Your task to perform on an android device: Open Youtube and go to the subscriptions tab Image 0: 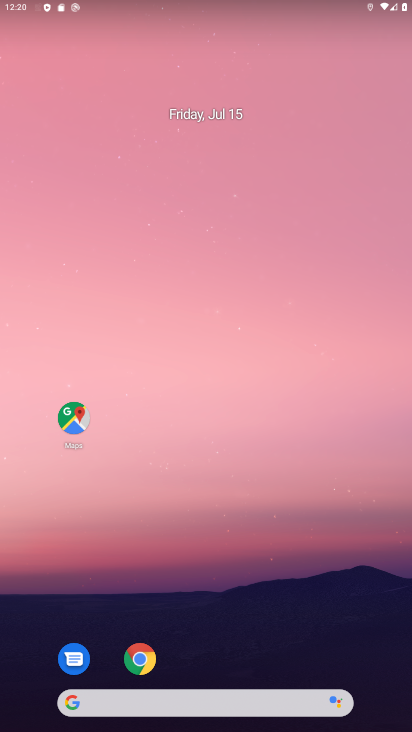
Step 0: drag from (218, 653) to (229, 80)
Your task to perform on an android device: Open Youtube and go to the subscriptions tab Image 1: 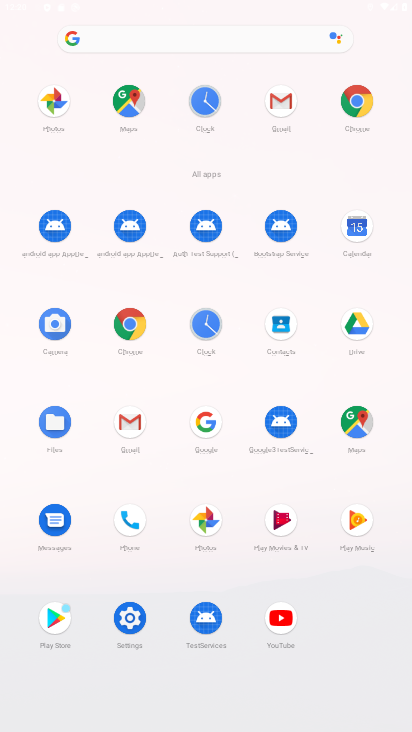
Step 1: click (283, 612)
Your task to perform on an android device: Open Youtube and go to the subscriptions tab Image 2: 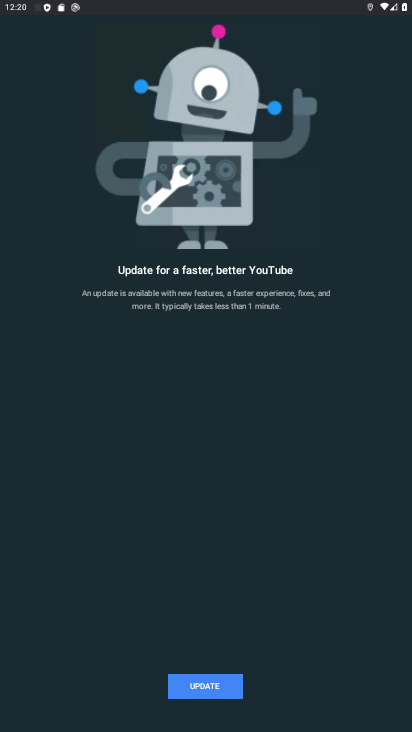
Step 2: click (197, 685)
Your task to perform on an android device: Open Youtube and go to the subscriptions tab Image 3: 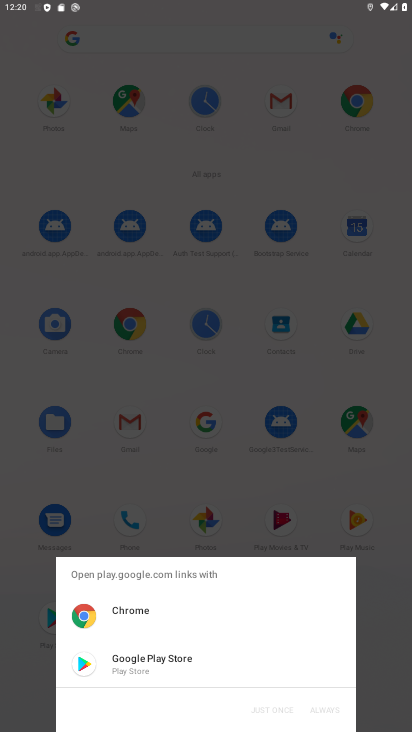
Step 3: click (195, 673)
Your task to perform on an android device: Open Youtube and go to the subscriptions tab Image 4: 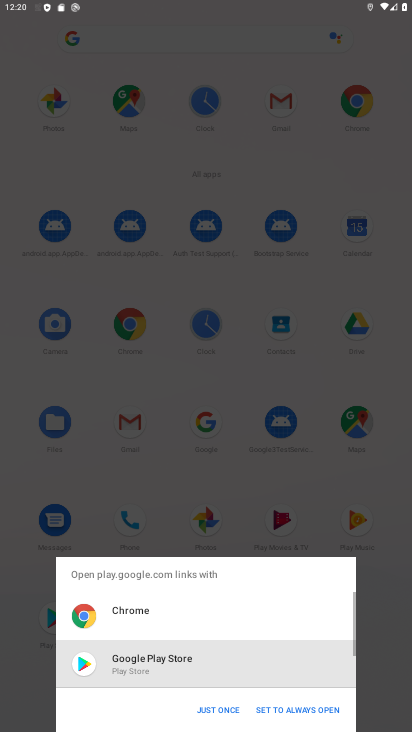
Step 4: click (211, 711)
Your task to perform on an android device: Open Youtube and go to the subscriptions tab Image 5: 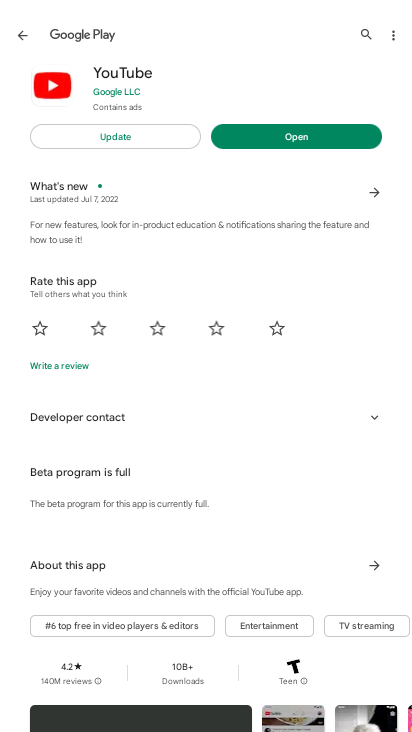
Step 5: click (128, 137)
Your task to perform on an android device: Open Youtube and go to the subscriptions tab Image 6: 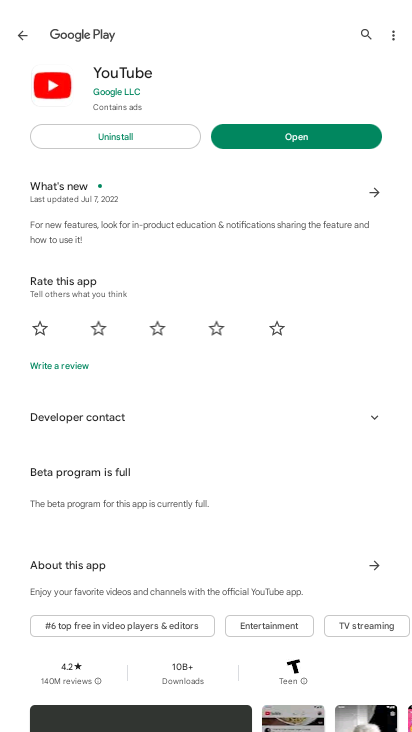
Step 6: click (292, 143)
Your task to perform on an android device: Open Youtube and go to the subscriptions tab Image 7: 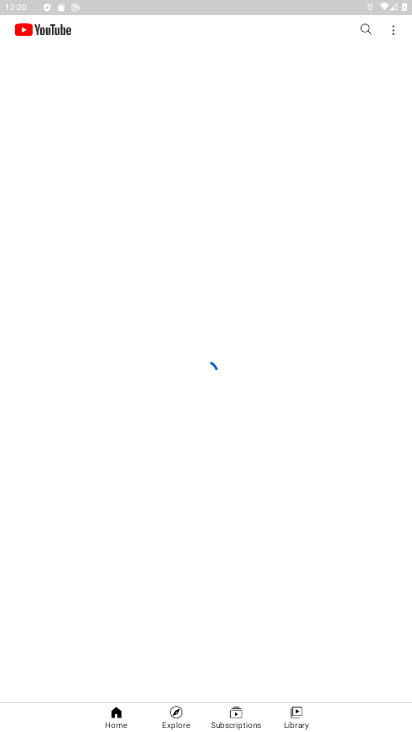
Step 7: click (239, 714)
Your task to perform on an android device: Open Youtube and go to the subscriptions tab Image 8: 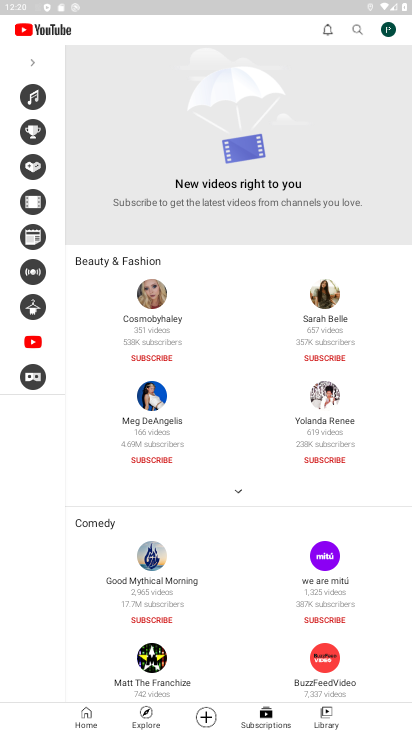
Step 8: task complete